Your task to perform on an android device: manage bookmarks in the chrome app Image 0: 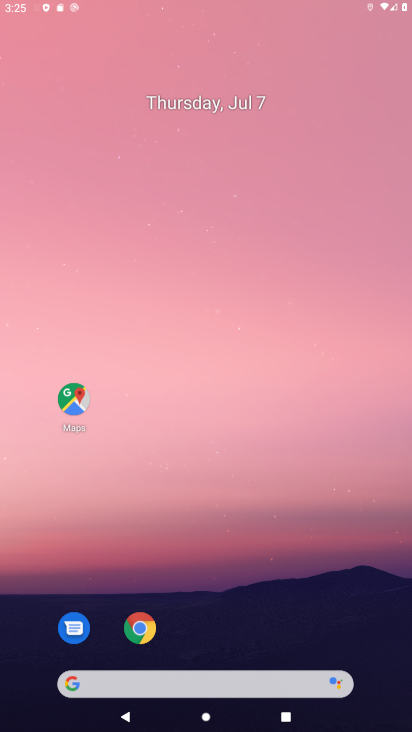
Step 0: press home button
Your task to perform on an android device: manage bookmarks in the chrome app Image 1: 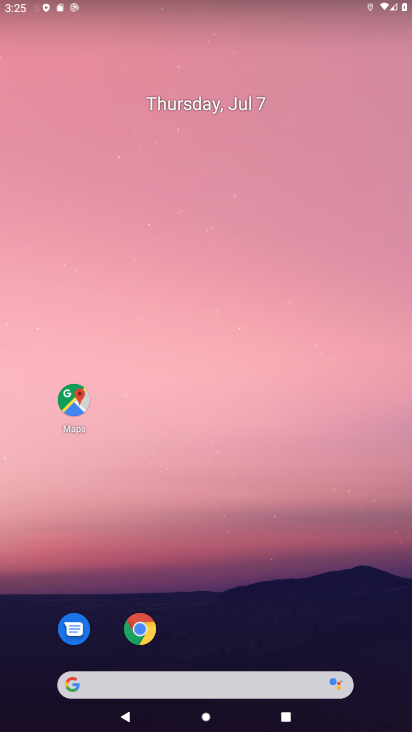
Step 1: drag from (216, 554) to (206, 125)
Your task to perform on an android device: manage bookmarks in the chrome app Image 2: 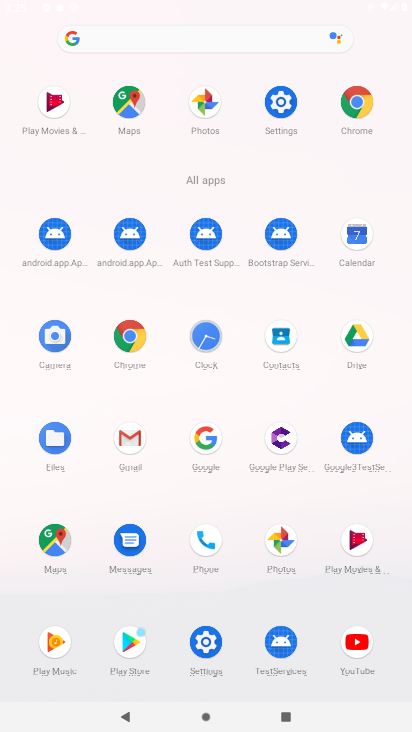
Step 2: click (360, 104)
Your task to perform on an android device: manage bookmarks in the chrome app Image 3: 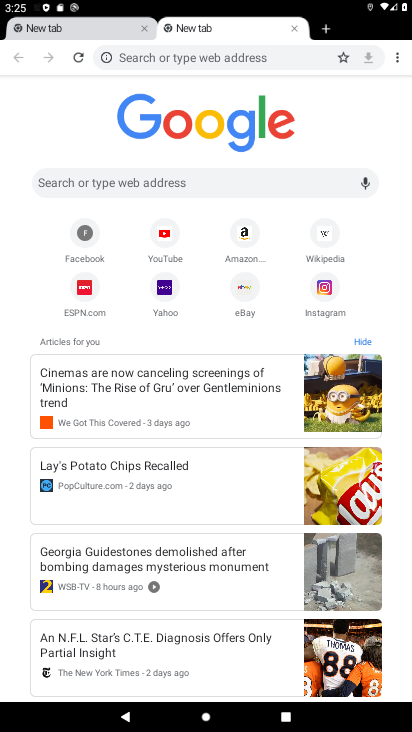
Step 3: task complete